Your task to perform on an android device: Play the last video I watched on Youtube Image 0: 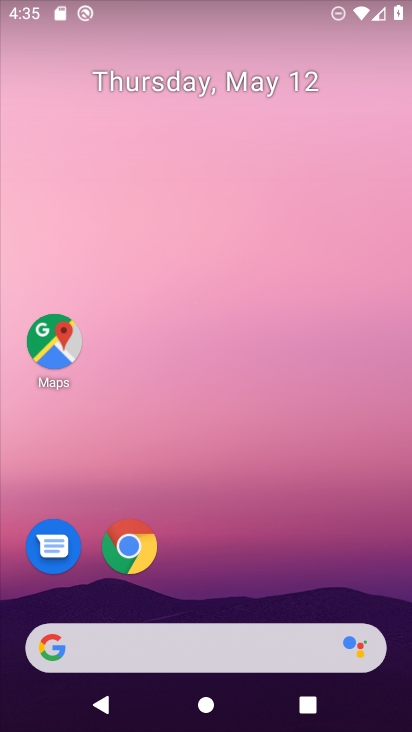
Step 0: drag from (280, 579) to (280, 288)
Your task to perform on an android device: Play the last video I watched on Youtube Image 1: 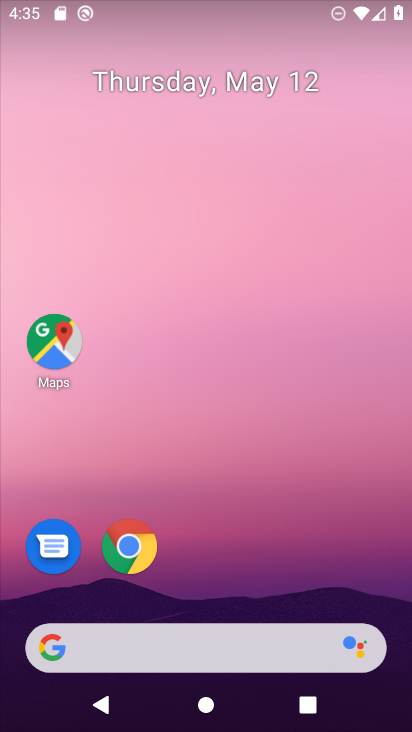
Step 1: drag from (251, 443) to (246, 278)
Your task to perform on an android device: Play the last video I watched on Youtube Image 2: 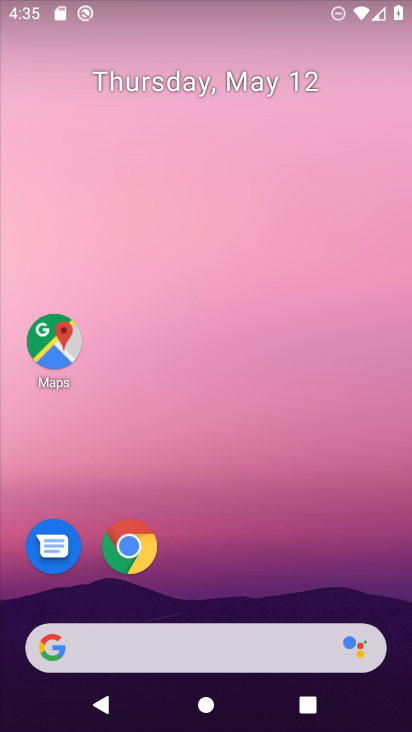
Step 2: drag from (272, 578) to (221, 253)
Your task to perform on an android device: Play the last video I watched on Youtube Image 3: 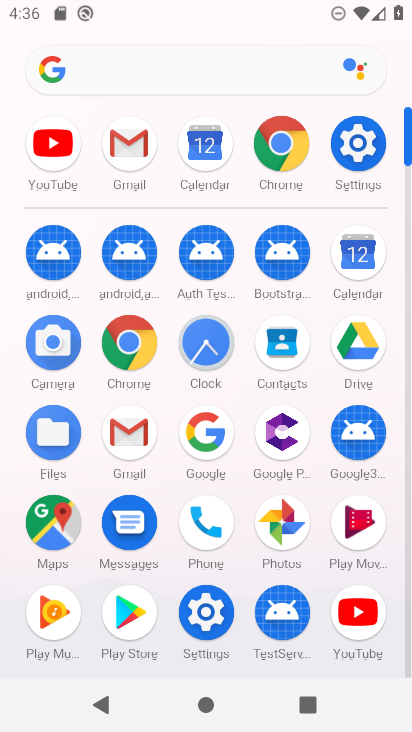
Step 3: click (365, 622)
Your task to perform on an android device: Play the last video I watched on Youtube Image 4: 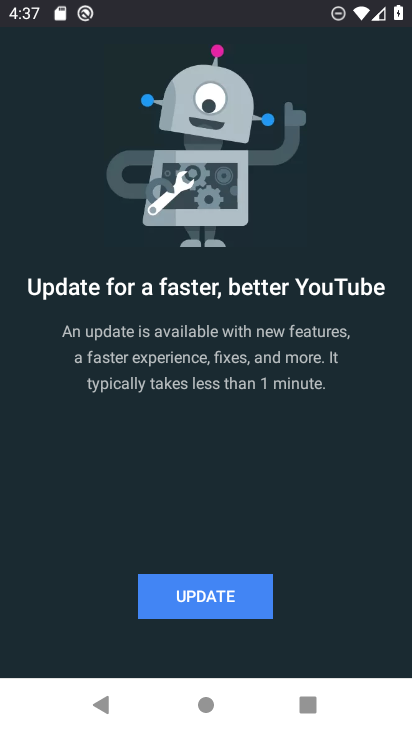
Step 4: task complete